Your task to perform on an android device: toggle notifications settings in the gmail app Image 0: 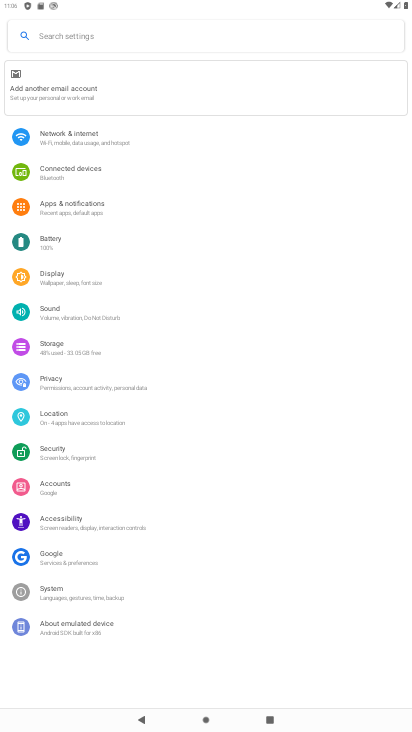
Step 0: press home button
Your task to perform on an android device: toggle notifications settings in the gmail app Image 1: 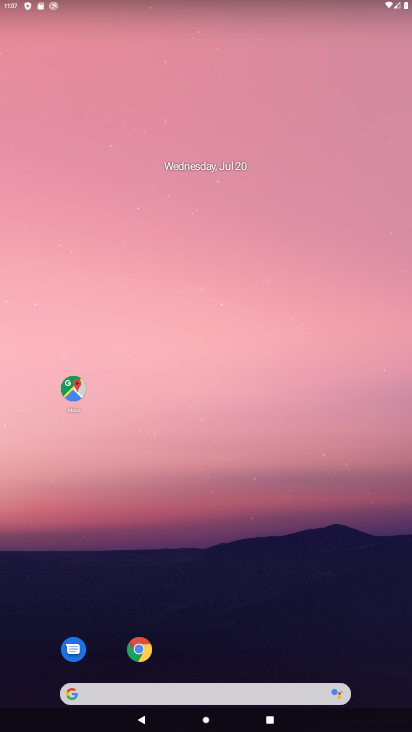
Step 1: drag from (265, 665) to (246, 187)
Your task to perform on an android device: toggle notifications settings in the gmail app Image 2: 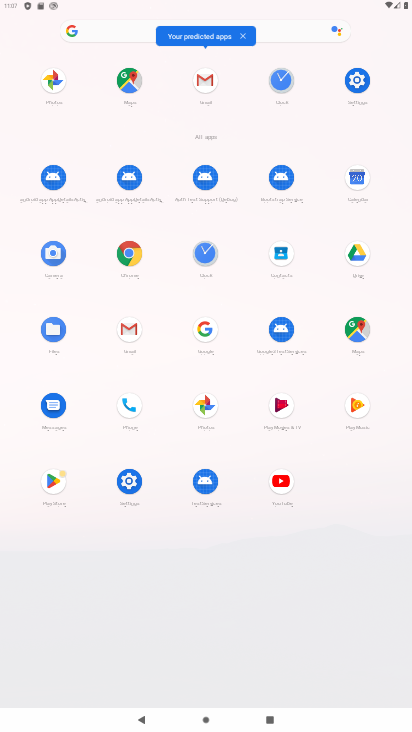
Step 2: click (356, 77)
Your task to perform on an android device: toggle notifications settings in the gmail app Image 3: 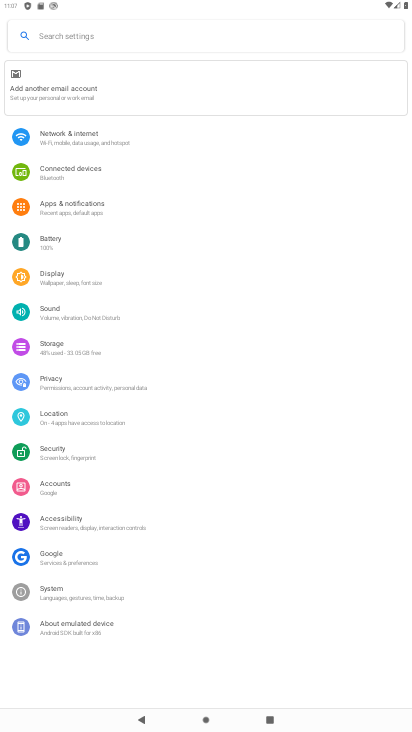
Step 3: click (113, 195)
Your task to perform on an android device: toggle notifications settings in the gmail app Image 4: 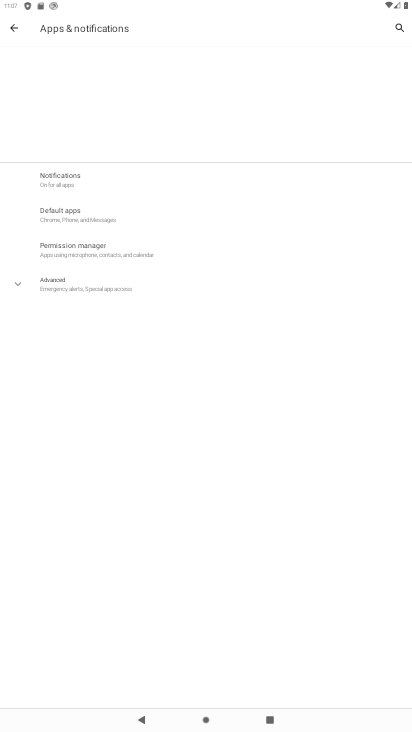
Step 4: task complete